Your task to perform on an android device: View the shopping cart on walmart. Search for bose soundlink on walmart, select the first entry, add it to the cart, then select checkout. Image 0: 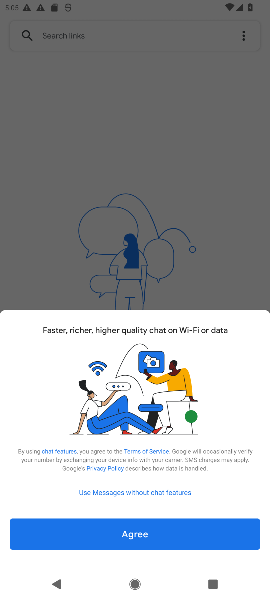
Step 0: press home button
Your task to perform on an android device: View the shopping cart on walmart. Search for bose soundlink on walmart, select the first entry, add it to the cart, then select checkout. Image 1: 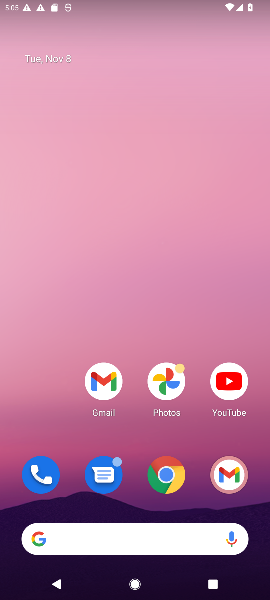
Step 1: drag from (143, 454) to (129, 189)
Your task to perform on an android device: View the shopping cart on walmart. Search for bose soundlink on walmart, select the first entry, add it to the cart, then select checkout. Image 2: 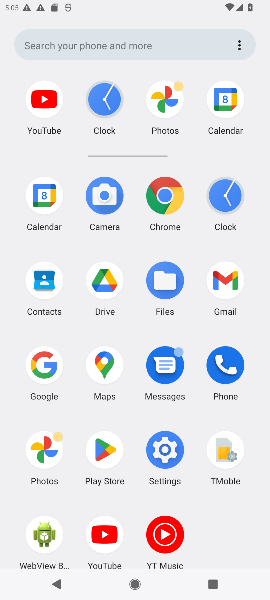
Step 2: click (48, 361)
Your task to perform on an android device: View the shopping cart on walmart. Search for bose soundlink on walmart, select the first entry, add it to the cart, then select checkout. Image 3: 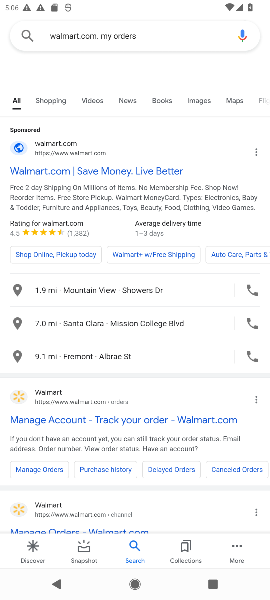
Step 3: click (89, 28)
Your task to perform on an android device: View the shopping cart on walmart. Search for bose soundlink on walmart, select the first entry, add it to the cart, then select checkout. Image 4: 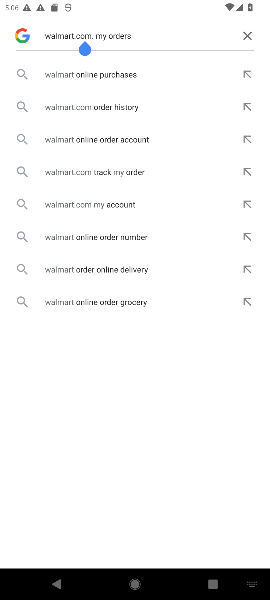
Step 4: click (246, 41)
Your task to perform on an android device: View the shopping cart on walmart. Search for bose soundlink on walmart, select the first entry, add it to the cart, then select checkout. Image 5: 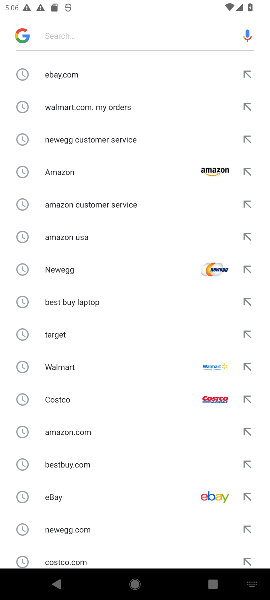
Step 5: click (133, 31)
Your task to perform on an android device: View the shopping cart on walmart. Search for bose soundlink on walmart, select the first entry, add it to the cart, then select checkout. Image 6: 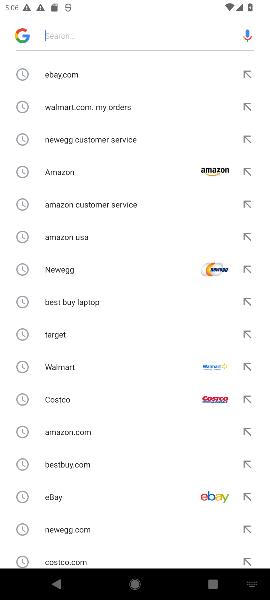
Step 6: type "walmart"
Your task to perform on an android device: View the shopping cart on walmart. Search for bose soundlink on walmart, select the first entry, add it to the cart, then select checkout. Image 7: 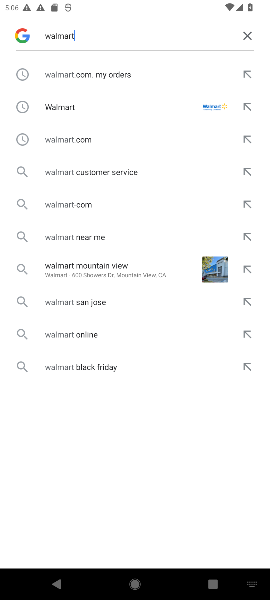
Step 7: click (56, 102)
Your task to perform on an android device: View the shopping cart on walmart. Search for bose soundlink on walmart, select the first entry, add it to the cart, then select checkout. Image 8: 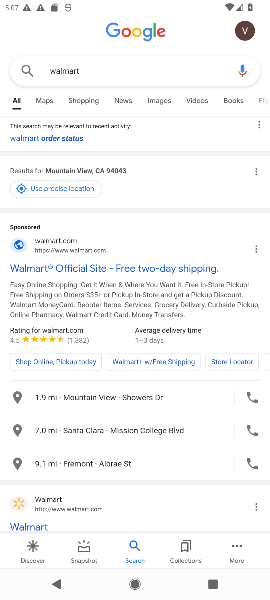
Step 8: click (14, 498)
Your task to perform on an android device: View the shopping cart on walmart. Search for bose soundlink on walmart, select the first entry, add it to the cart, then select checkout. Image 9: 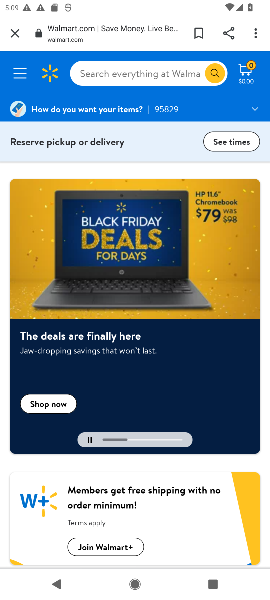
Step 9: click (132, 66)
Your task to perform on an android device: View the shopping cart on walmart. Search for bose soundlink on walmart, select the first entry, add it to the cart, then select checkout. Image 10: 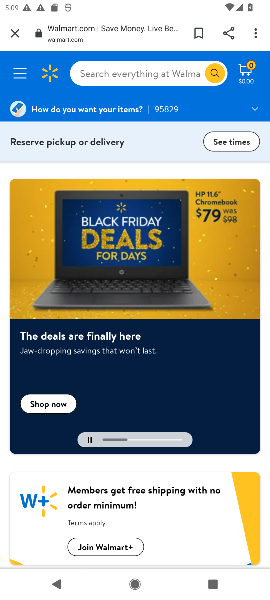
Step 10: click (132, 66)
Your task to perform on an android device: View the shopping cart on walmart. Search for bose soundlink on walmart, select the first entry, add it to the cart, then select checkout. Image 11: 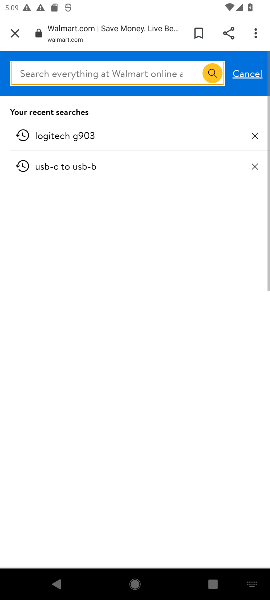
Step 11: click (133, 67)
Your task to perform on an android device: View the shopping cart on walmart. Search for bose soundlink on walmart, select the first entry, add it to the cart, then select checkout. Image 12: 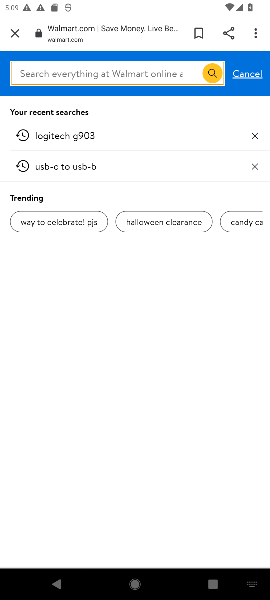
Step 12: type "bose soundlink  "
Your task to perform on an android device: View the shopping cart on walmart. Search for bose soundlink on walmart, select the first entry, add it to the cart, then select checkout. Image 13: 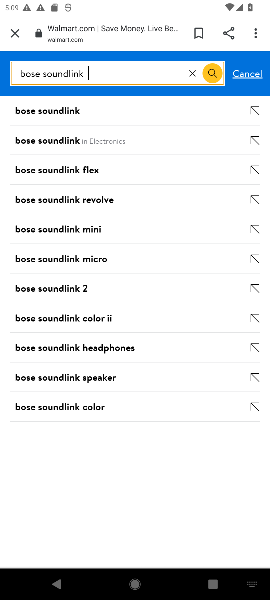
Step 13: click (75, 108)
Your task to perform on an android device: View the shopping cart on walmart. Search for bose soundlink on walmart, select the first entry, add it to the cart, then select checkout. Image 14: 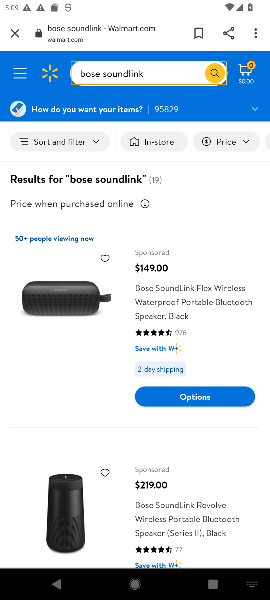
Step 14: click (198, 393)
Your task to perform on an android device: View the shopping cart on walmart. Search for bose soundlink on walmart, select the first entry, add it to the cart, then select checkout. Image 15: 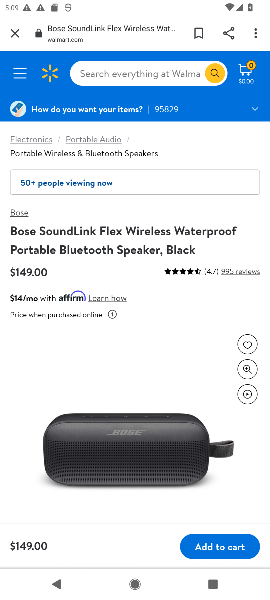
Step 15: click (222, 546)
Your task to perform on an android device: View the shopping cart on walmart. Search for bose soundlink on walmart, select the first entry, add it to the cart, then select checkout. Image 16: 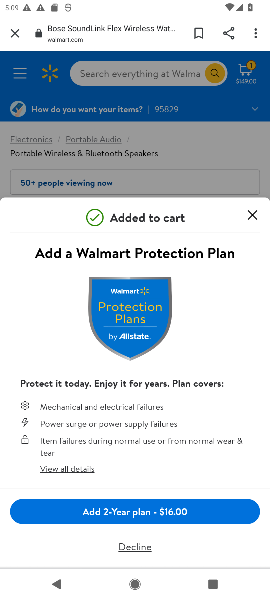
Step 16: click (131, 544)
Your task to perform on an android device: View the shopping cart on walmart. Search for bose soundlink on walmart, select the first entry, add it to the cart, then select checkout. Image 17: 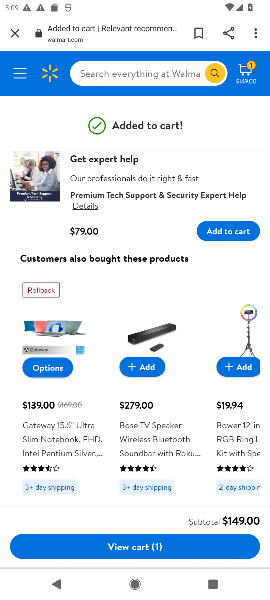
Step 17: task complete